Your task to perform on an android device: Go to CNN.com Image 0: 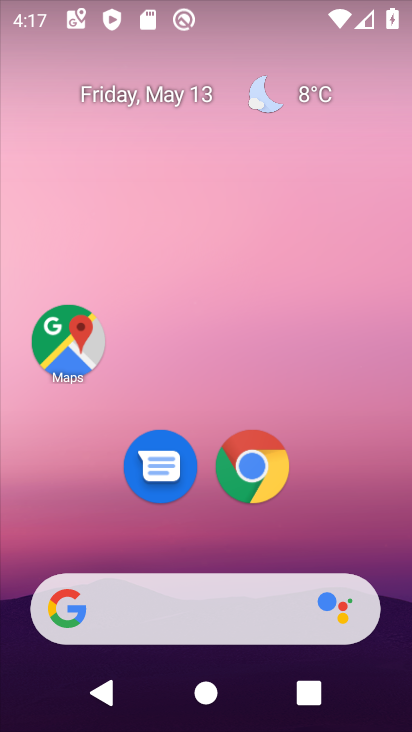
Step 0: click (248, 460)
Your task to perform on an android device: Go to CNN.com Image 1: 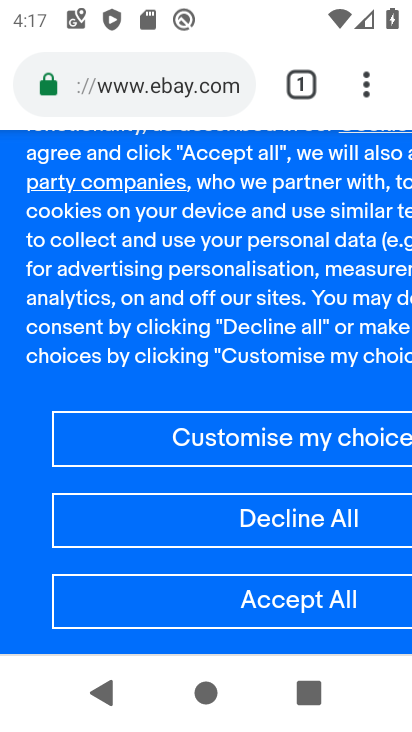
Step 1: click (148, 77)
Your task to perform on an android device: Go to CNN.com Image 2: 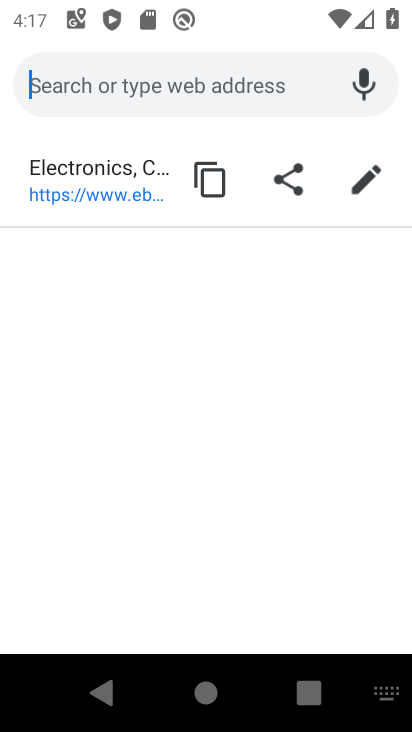
Step 2: type "cnn.com"
Your task to perform on an android device: Go to CNN.com Image 3: 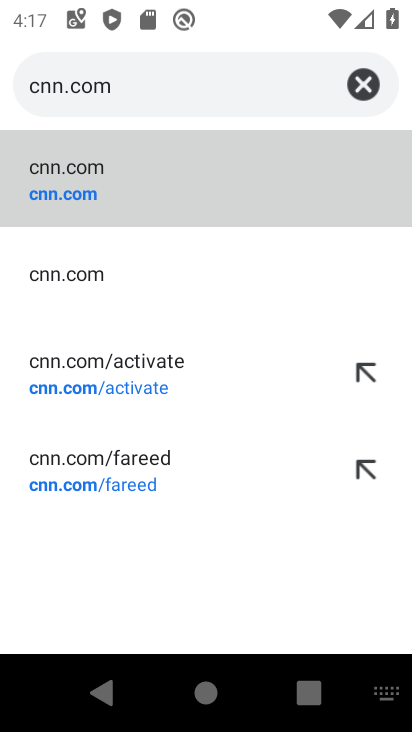
Step 3: click (54, 167)
Your task to perform on an android device: Go to CNN.com Image 4: 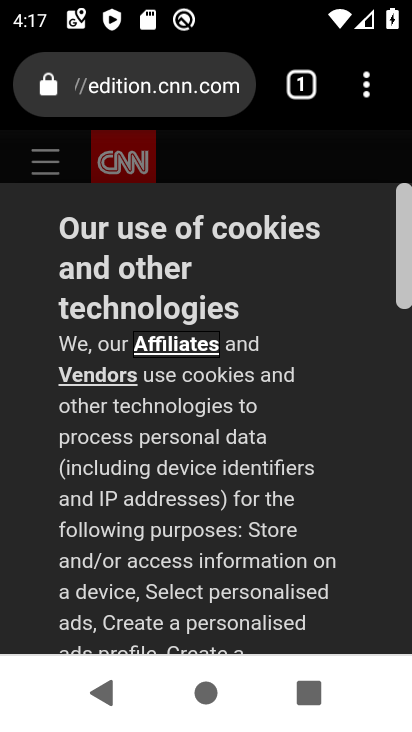
Step 4: task complete